Your task to perform on an android device: What's the weather going to be this weekend? Image 0: 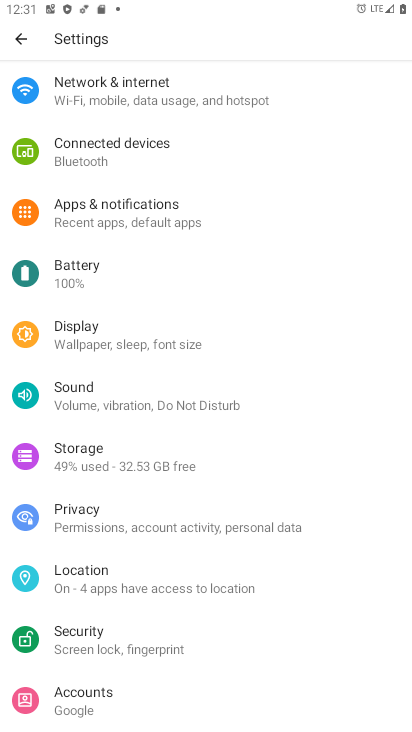
Step 0: press home button
Your task to perform on an android device: What's the weather going to be this weekend? Image 1: 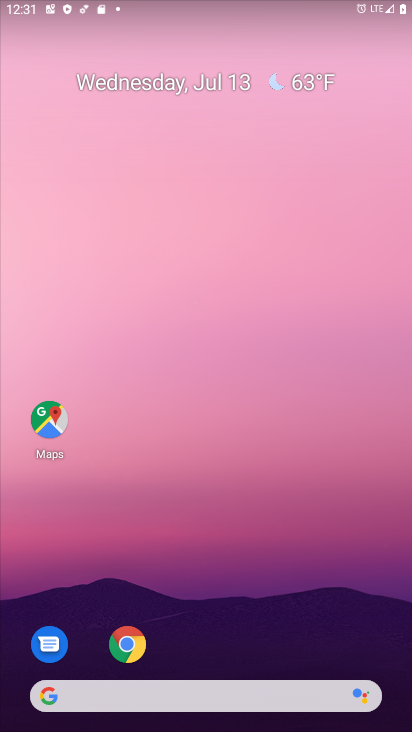
Step 1: drag from (173, 692) to (236, 143)
Your task to perform on an android device: What's the weather going to be this weekend? Image 2: 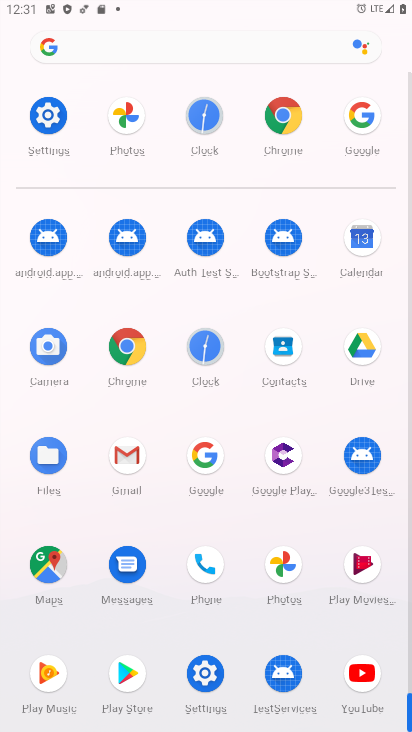
Step 2: click (356, 115)
Your task to perform on an android device: What's the weather going to be this weekend? Image 3: 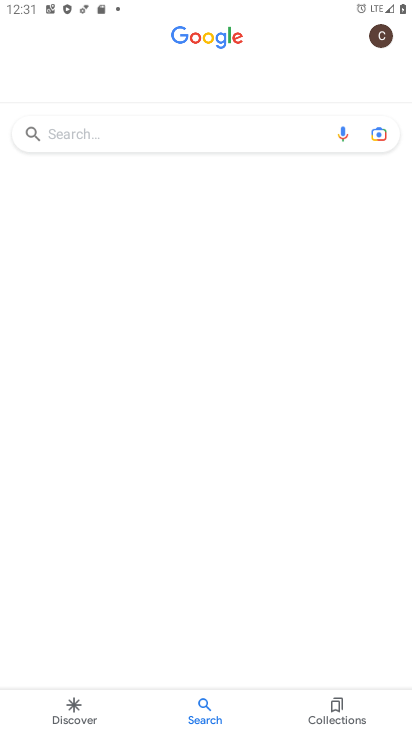
Step 3: click (215, 121)
Your task to perform on an android device: What's the weather going to be this weekend? Image 4: 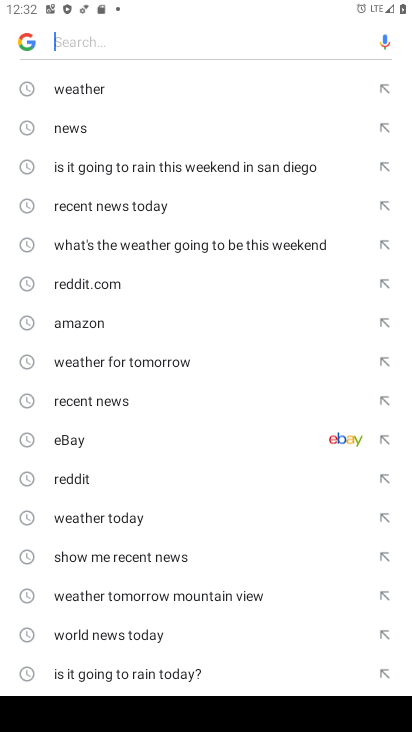
Step 4: type "What's the weather going to be this weekend?"
Your task to perform on an android device: What's the weather going to be this weekend? Image 5: 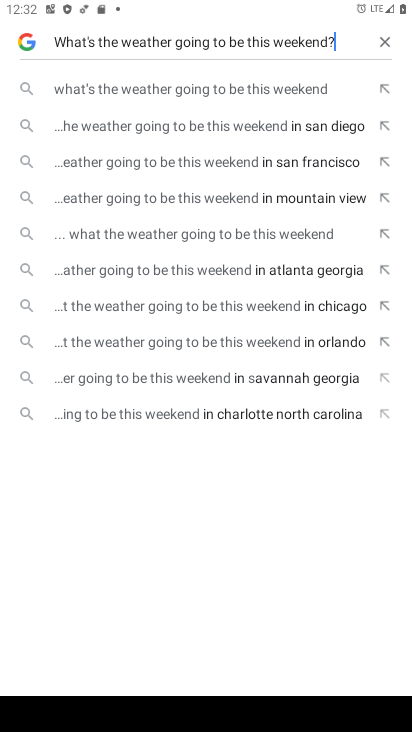
Step 5: click (211, 94)
Your task to perform on an android device: What's the weather going to be this weekend? Image 6: 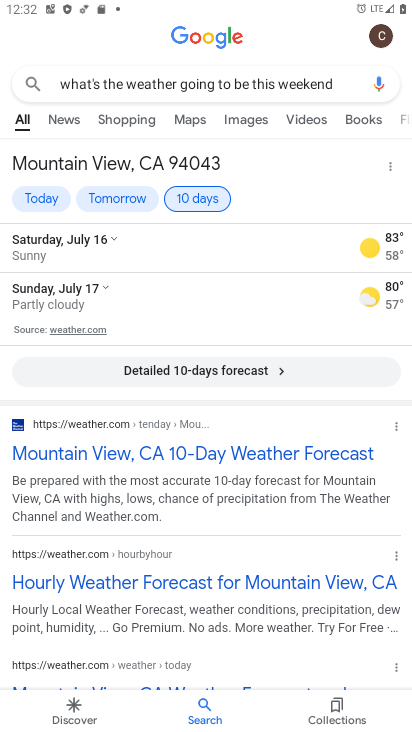
Step 6: task complete